Your task to perform on an android device: Check the news Image 0: 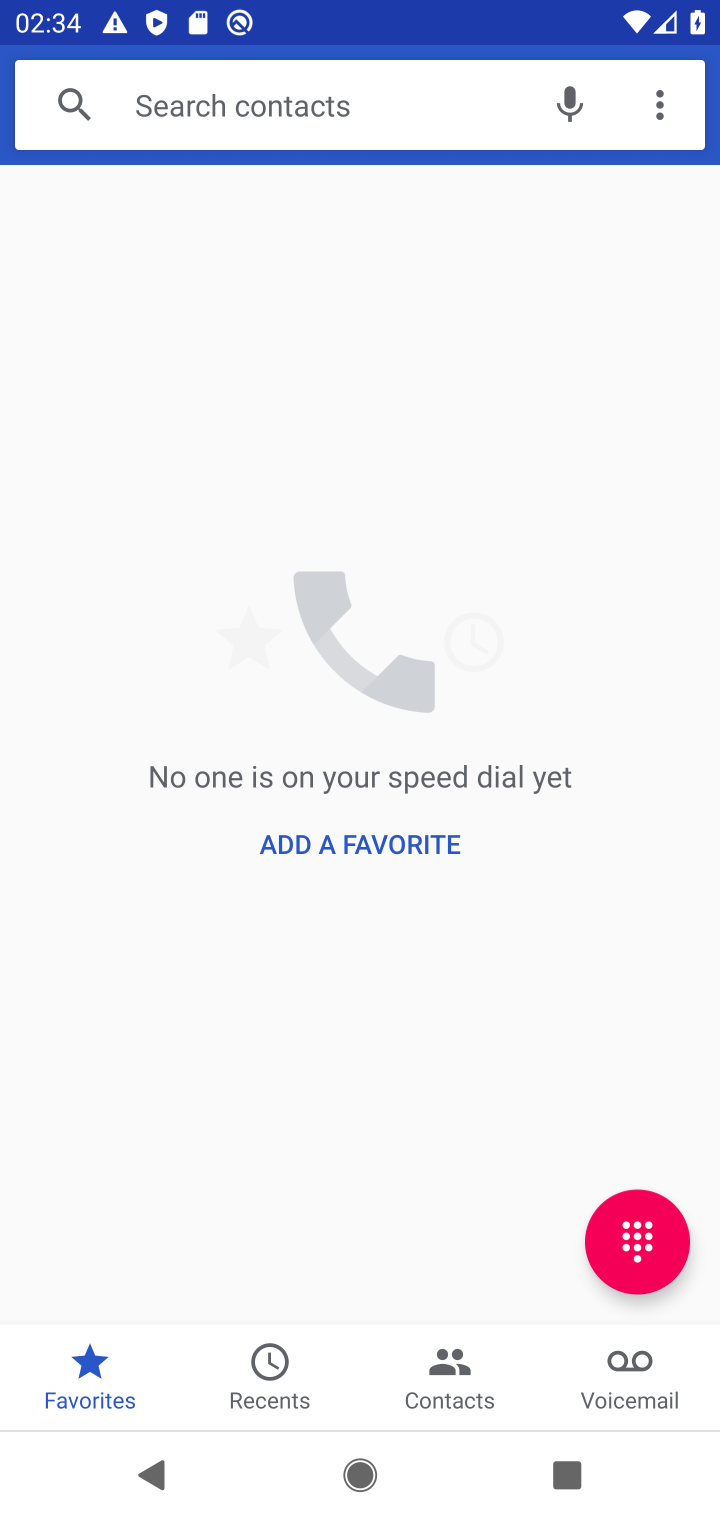
Step 0: press home button
Your task to perform on an android device: Check the news Image 1: 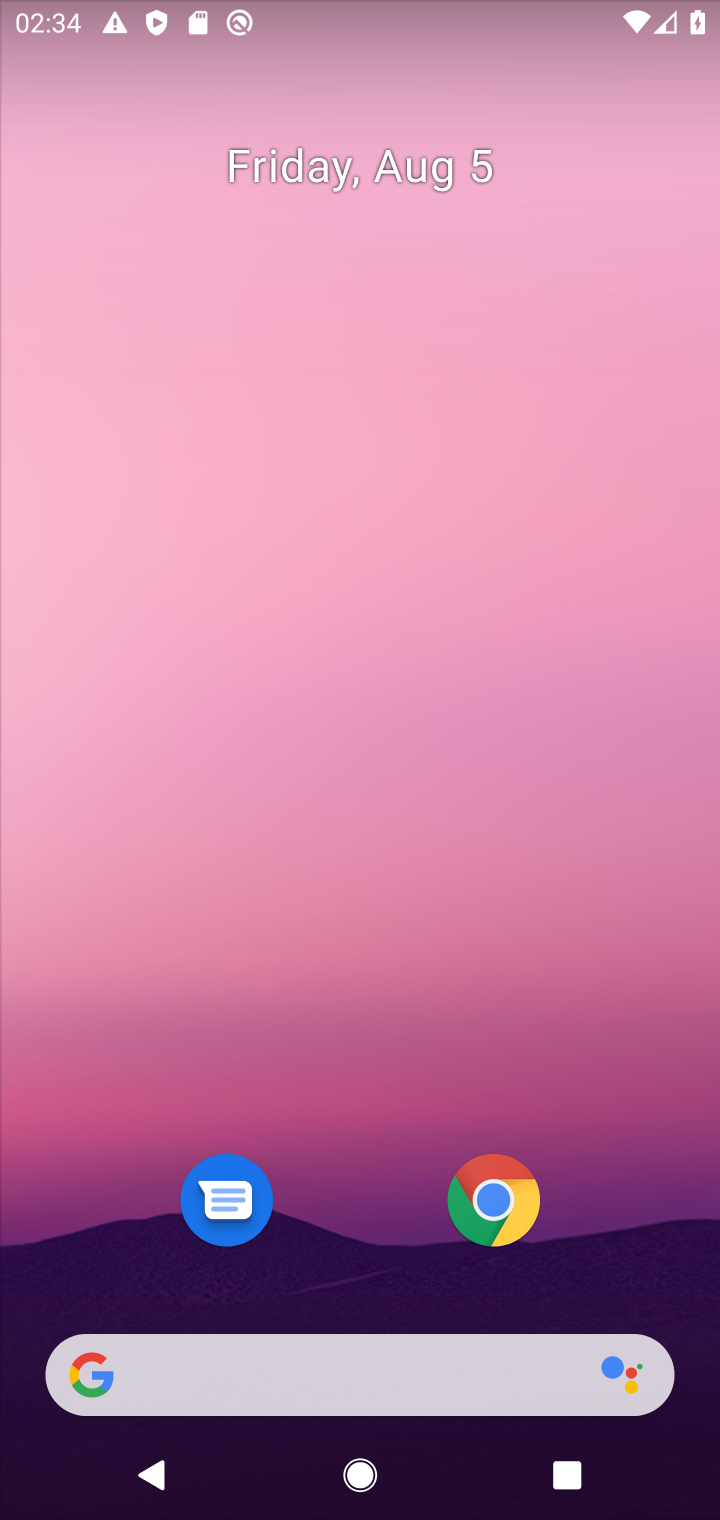
Step 1: drag from (339, 1092) to (342, 364)
Your task to perform on an android device: Check the news Image 2: 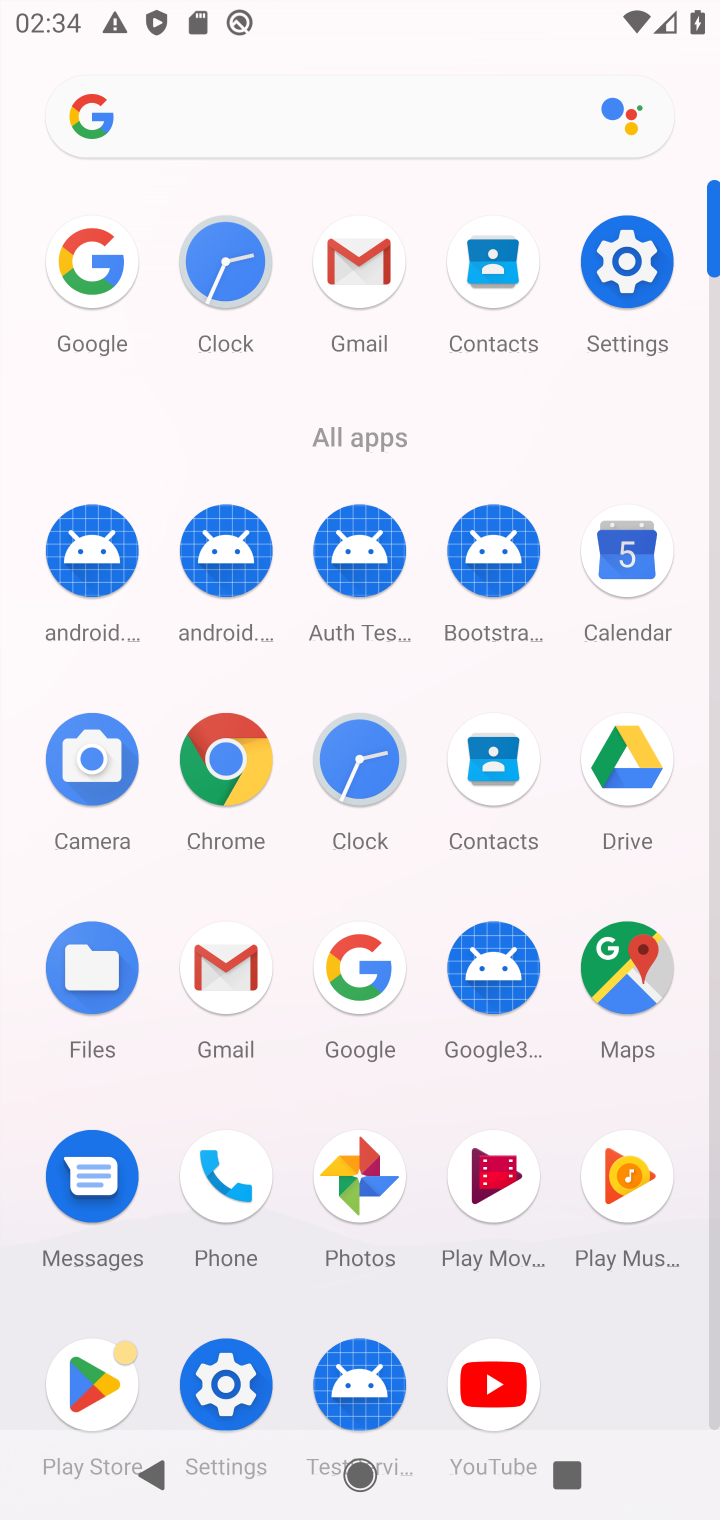
Step 2: click (65, 286)
Your task to perform on an android device: Check the news Image 3: 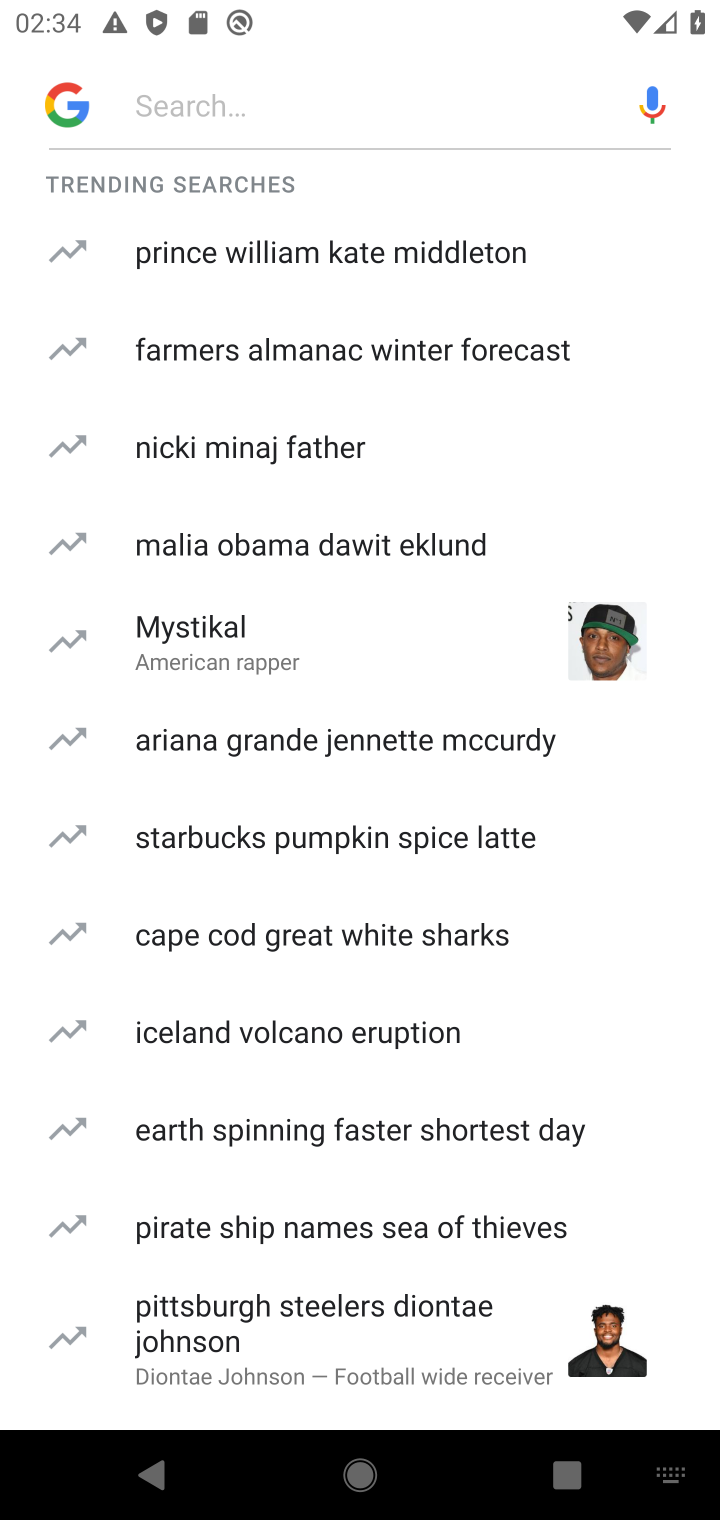
Step 3: type "news"
Your task to perform on an android device: Check the news Image 4: 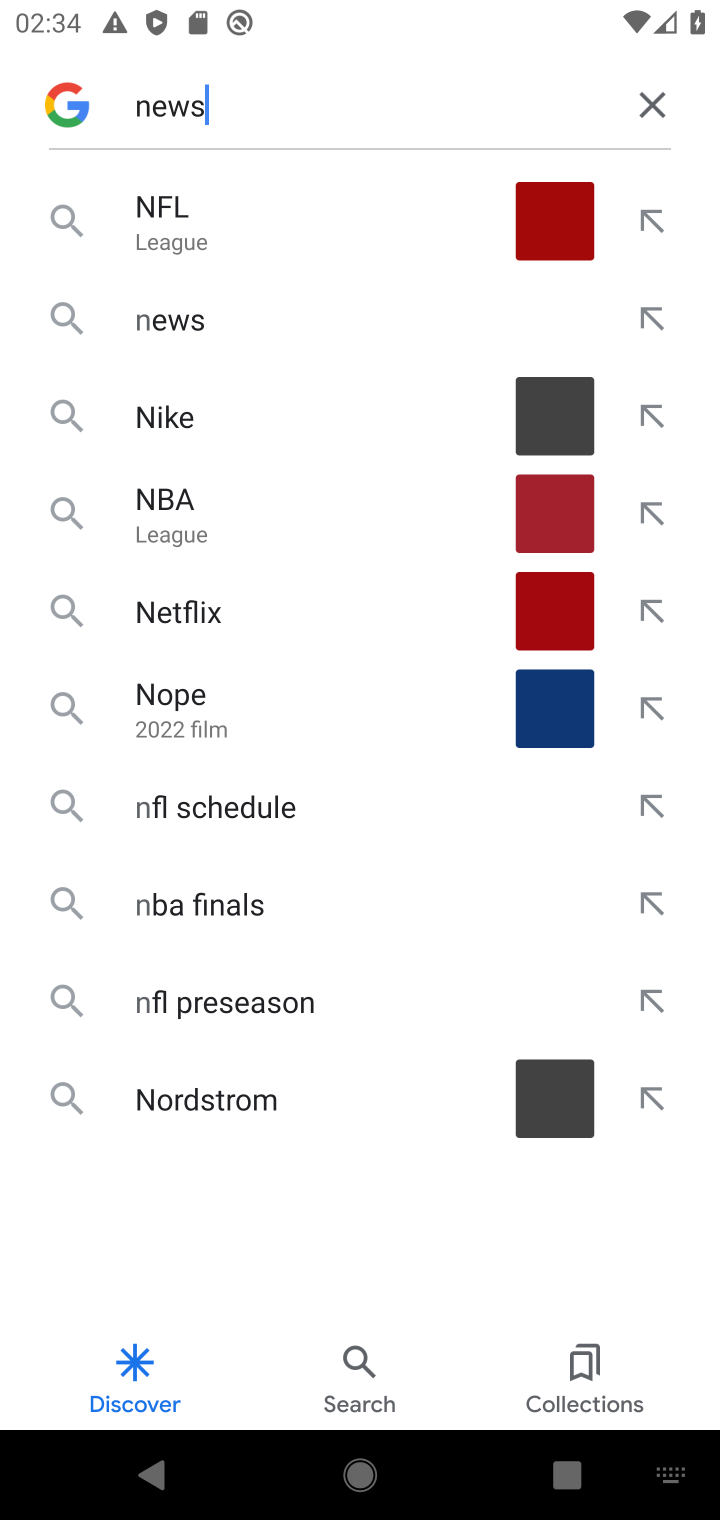
Step 4: type ""
Your task to perform on an android device: Check the news Image 5: 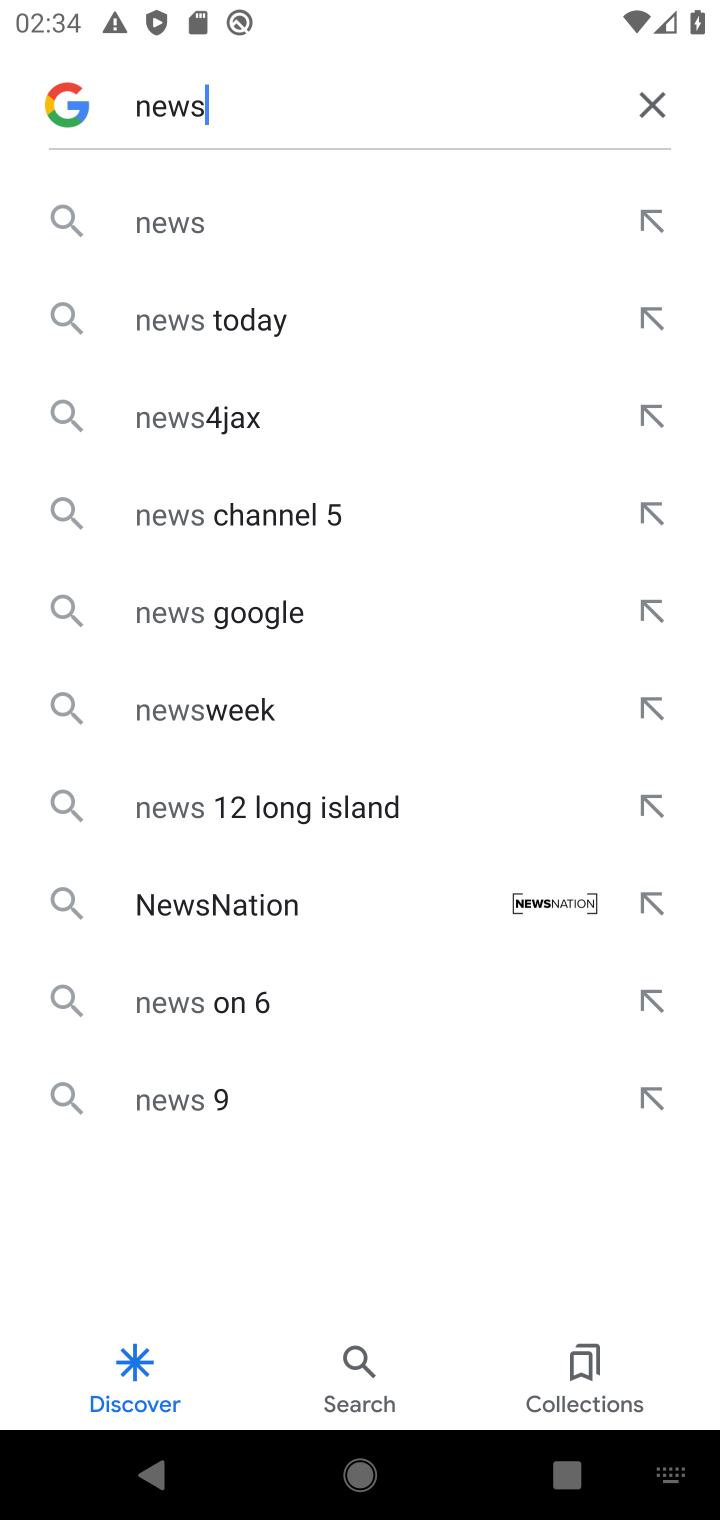
Step 5: click (168, 200)
Your task to perform on an android device: Check the news Image 6: 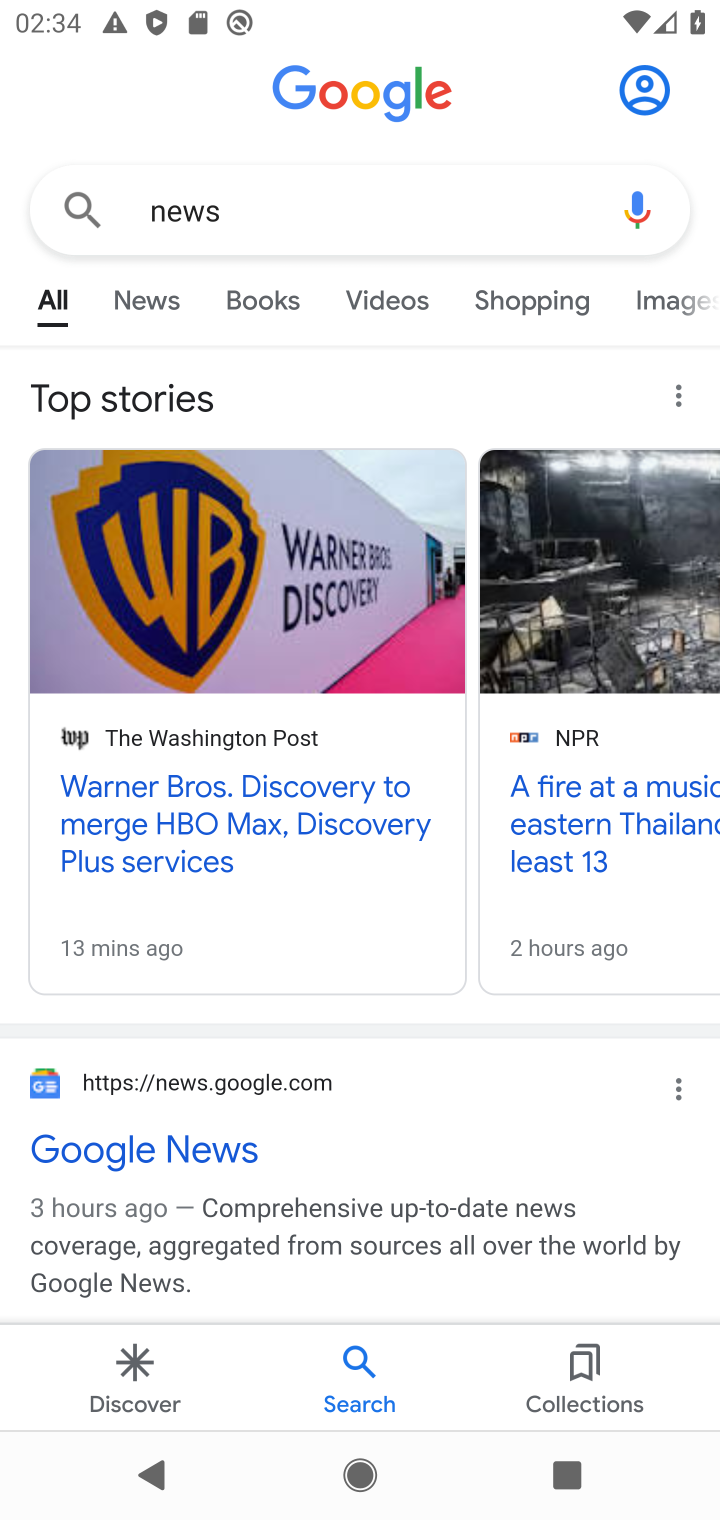
Step 6: click (135, 309)
Your task to perform on an android device: Check the news Image 7: 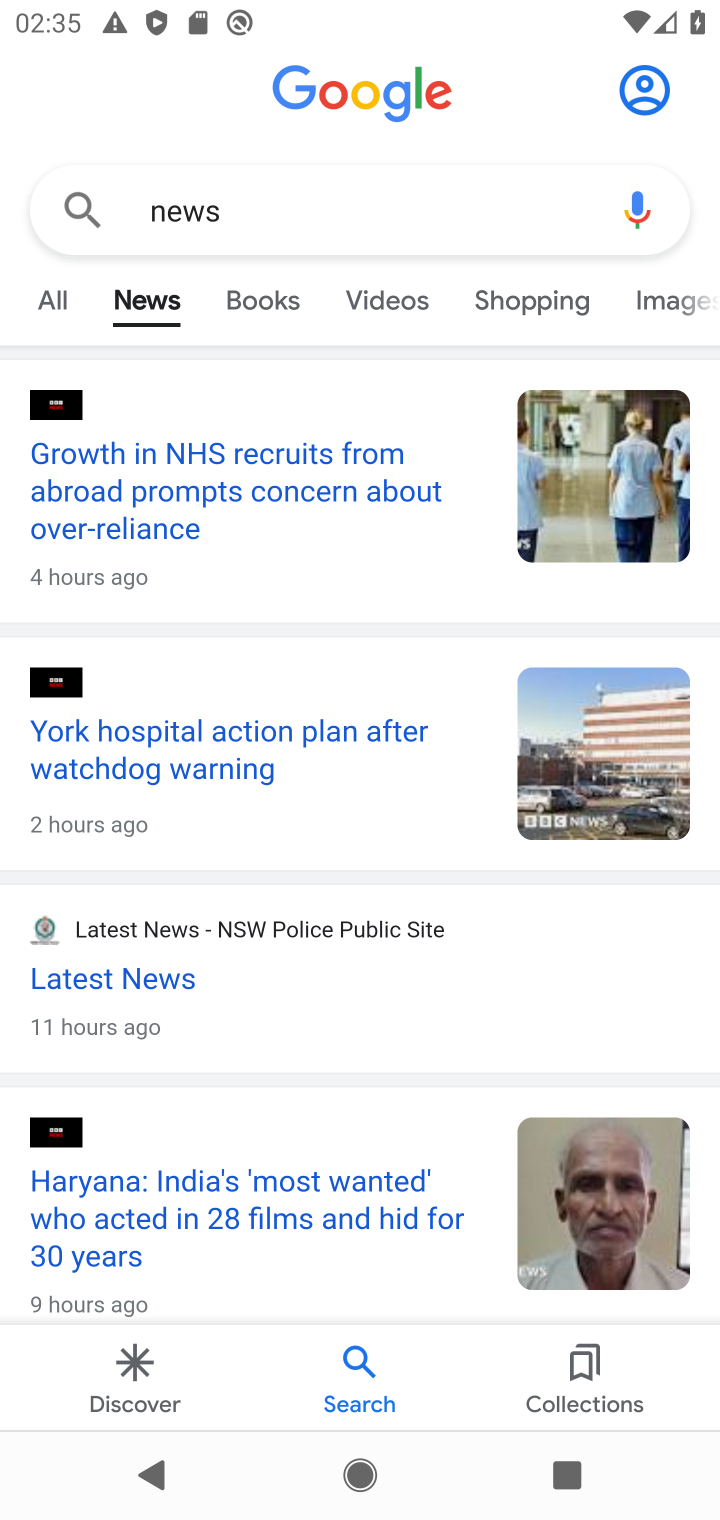
Step 7: task complete